Your task to perform on an android device: Go to settings Image 0: 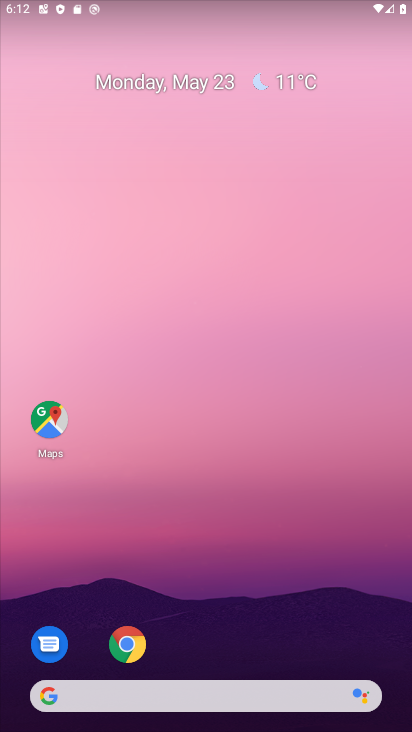
Step 0: drag from (229, 628) to (225, 360)
Your task to perform on an android device: Go to settings Image 1: 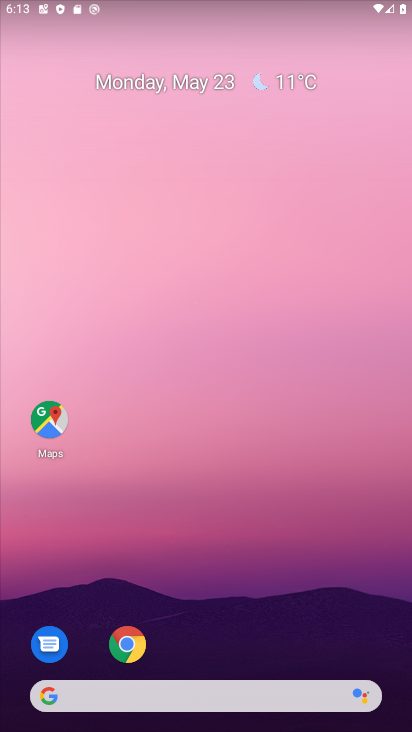
Step 1: drag from (238, 578) to (205, 204)
Your task to perform on an android device: Go to settings Image 2: 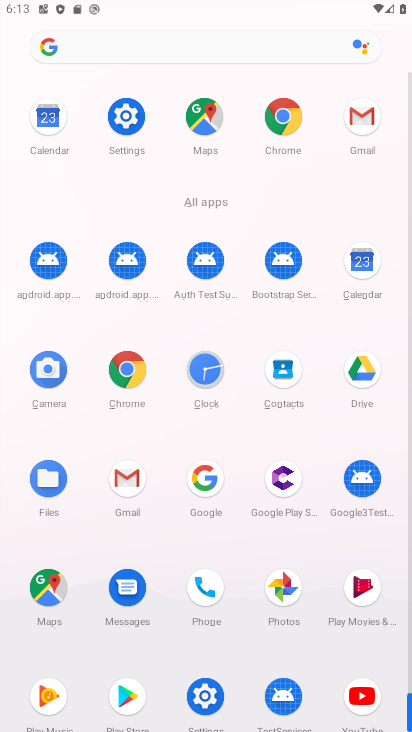
Step 2: click (206, 689)
Your task to perform on an android device: Go to settings Image 3: 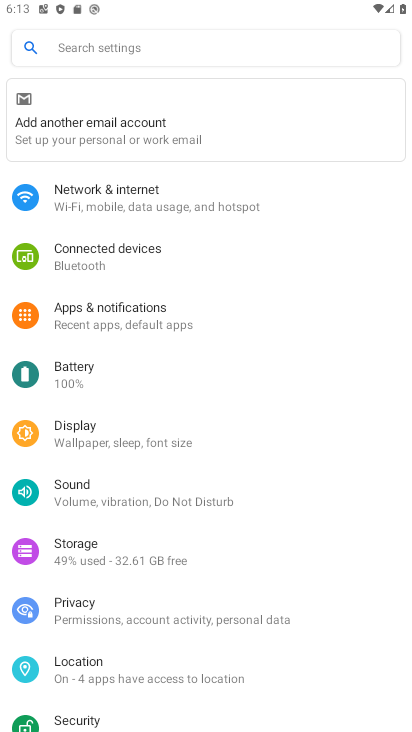
Step 3: task complete